Your task to perform on an android device: turn on location history Image 0: 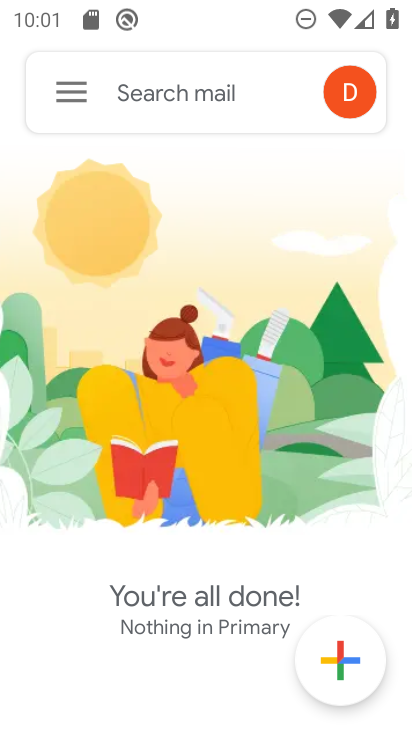
Step 0: press home button
Your task to perform on an android device: turn on location history Image 1: 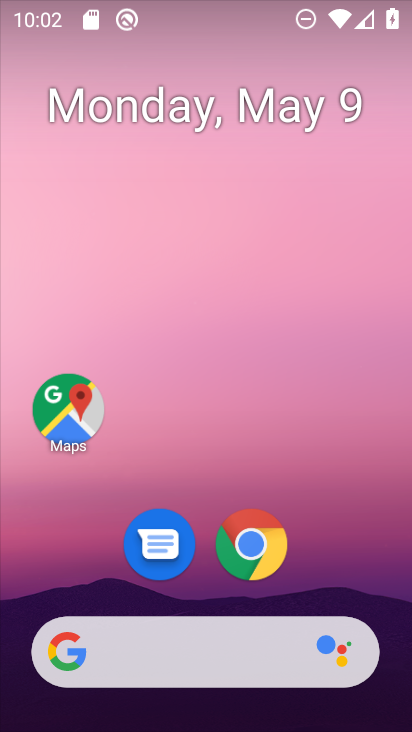
Step 1: click (59, 412)
Your task to perform on an android device: turn on location history Image 2: 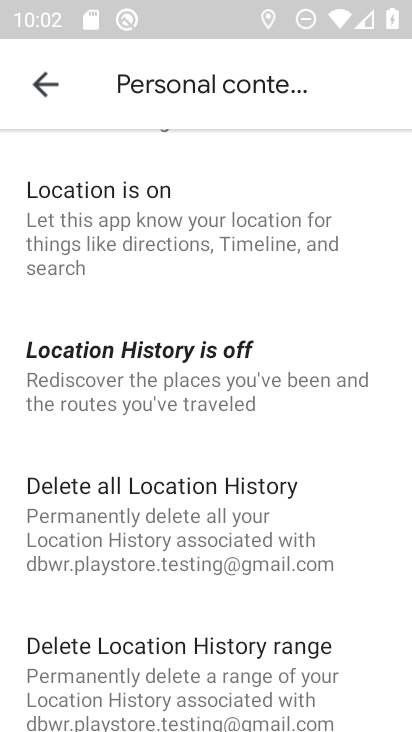
Step 2: click (137, 355)
Your task to perform on an android device: turn on location history Image 3: 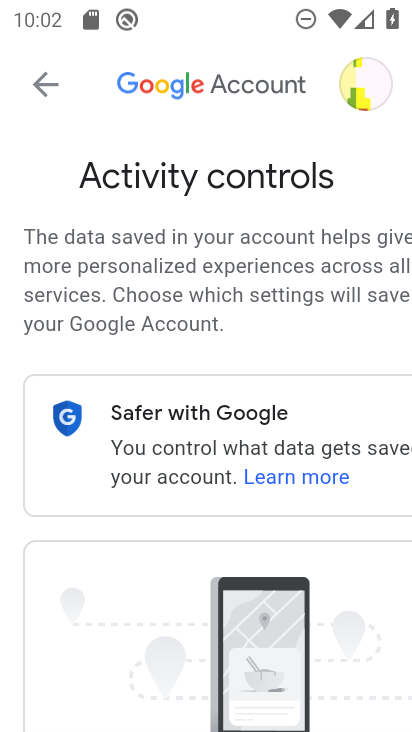
Step 3: drag from (269, 575) to (248, 326)
Your task to perform on an android device: turn on location history Image 4: 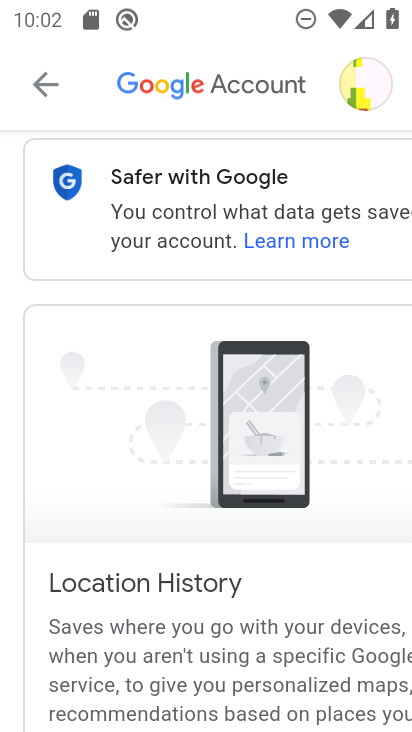
Step 4: drag from (309, 526) to (304, 222)
Your task to perform on an android device: turn on location history Image 5: 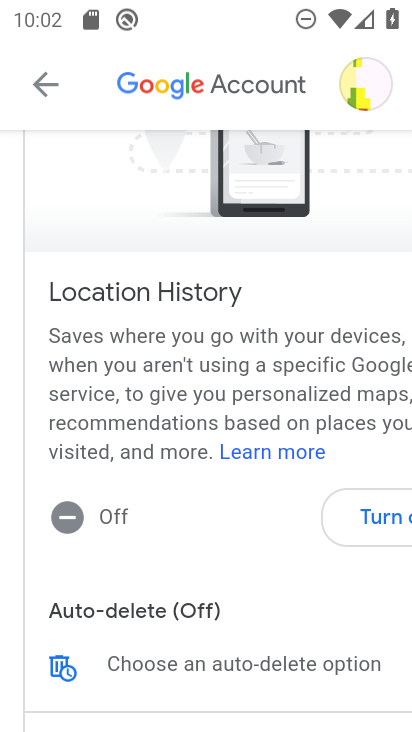
Step 5: click (374, 510)
Your task to perform on an android device: turn on location history Image 6: 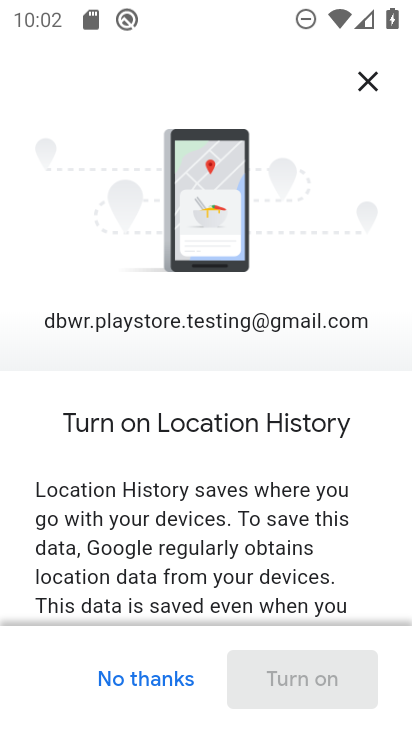
Step 6: drag from (267, 583) to (261, 204)
Your task to perform on an android device: turn on location history Image 7: 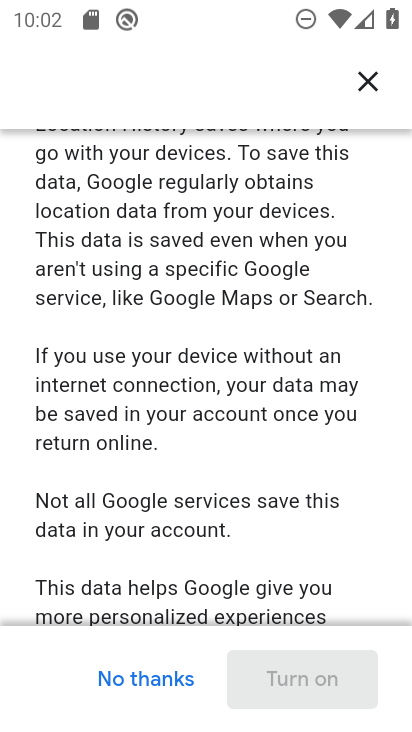
Step 7: drag from (296, 539) to (298, 116)
Your task to perform on an android device: turn on location history Image 8: 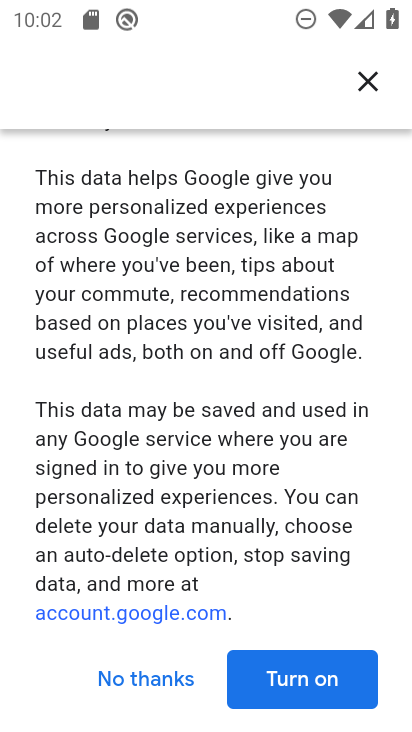
Step 8: click (264, 679)
Your task to perform on an android device: turn on location history Image 9: 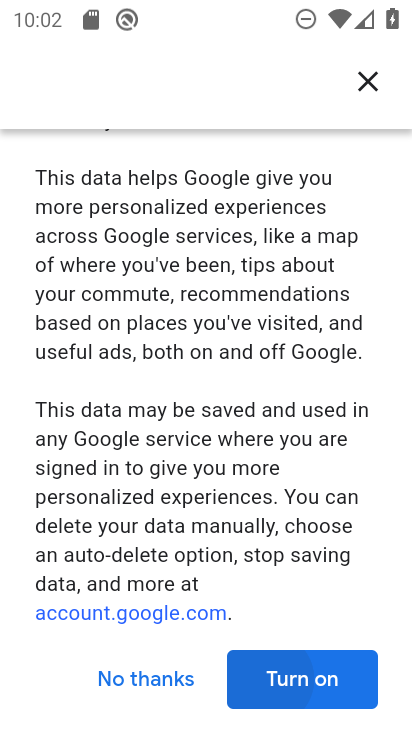
Step 9: click (264, 679)
Your task to perform on an android device: turn on location history Image 10: 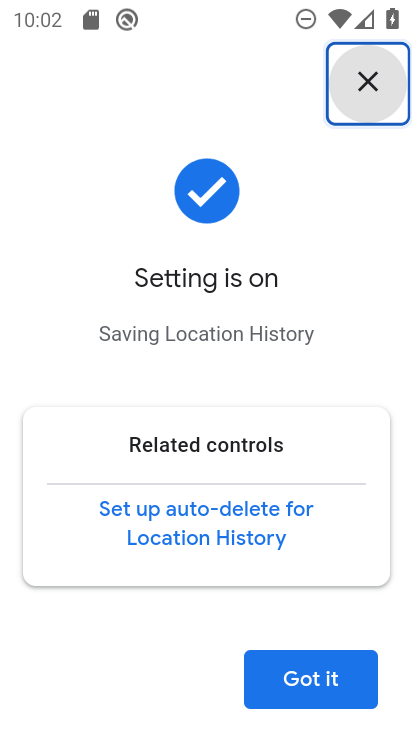
Step 10: click (293, 678)
Your task to perform on an android device: turn on location history Image 11: 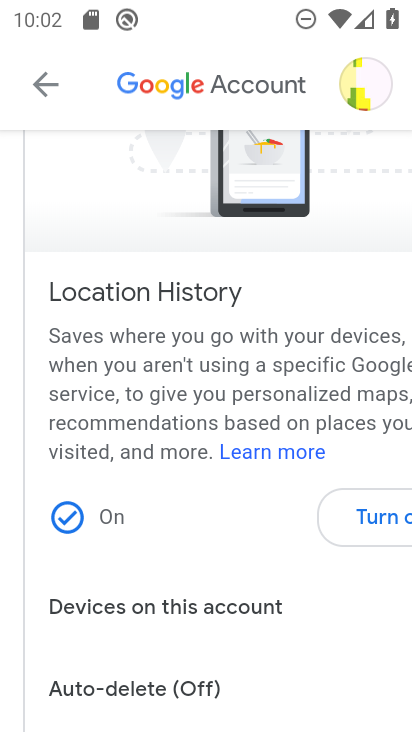
Step 11: task complete